Your task to perform on an android device: Check the weather Image 0: 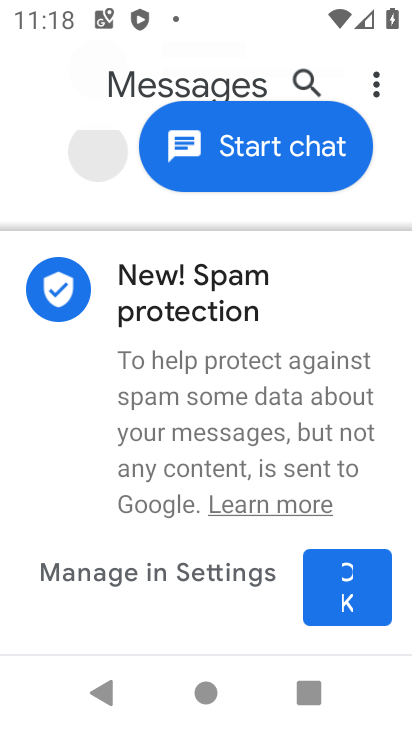
Step 0: press home button
Your task to perform on an android device: Check the weather Image 1: 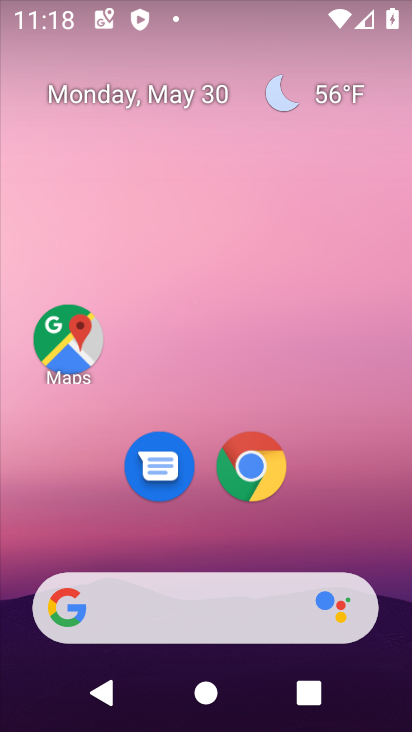
Step 1: click (356, 99)
Your task to perform on an android device: Check the weather Image 2: 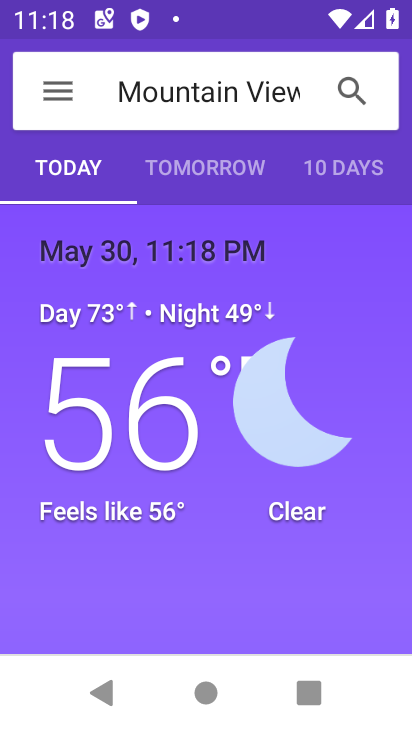
Step 2: task complete